Your task to perform on an android device: toggle improve location accuracy Image 0: 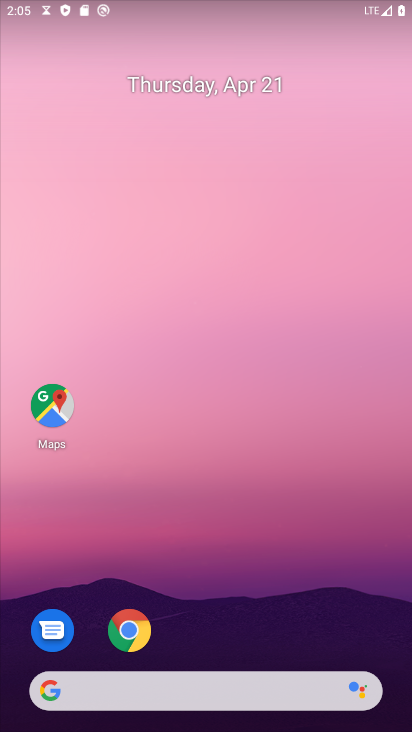
Step 0: drag from (372, 648) to (374, 1)
Your task to perform on an android device: toggle improve location accuracy Image 1: 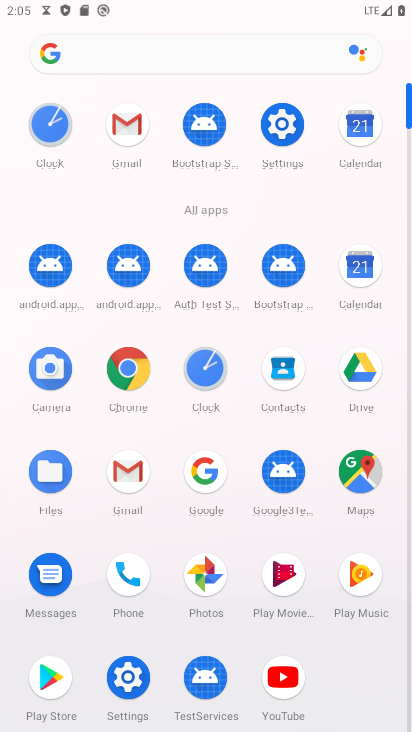
Step 1: click (273, 126)
Your task to perform on an android device: toggle improve location accuracy Image 2: 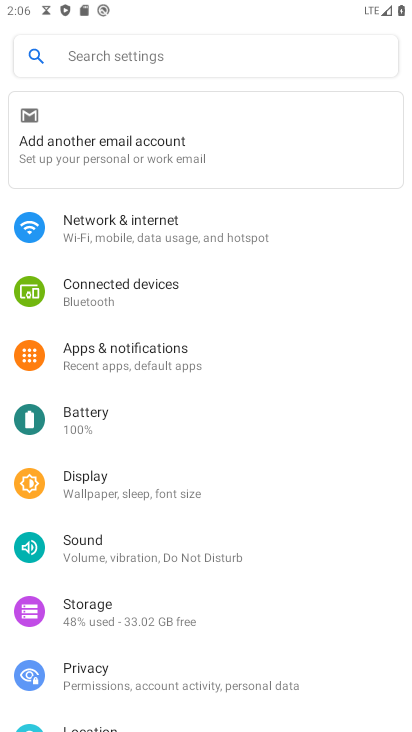
Step 2: drag from (233, 598) to (240, 308)
Your task to perform on an android device: toggle improve location accuracy Image 3: 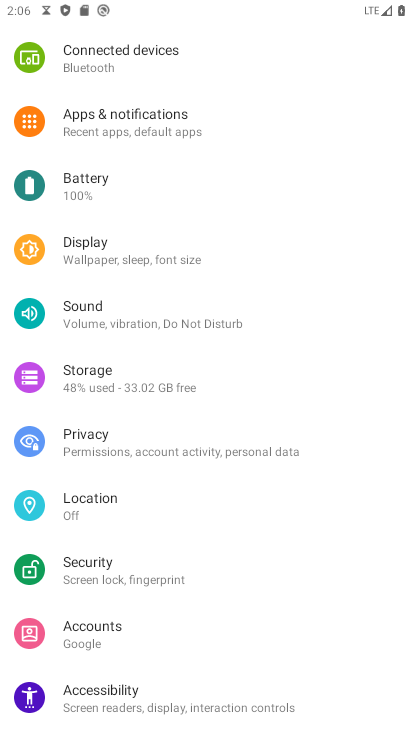
Step 3: click (70, 498)
Your task to perform on an android device: toggle improve location accuracy Image 4: 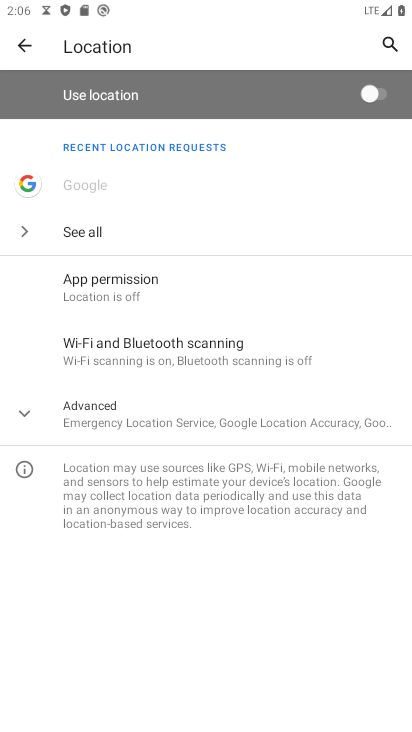
Step 4: click (22, 412)
Your task to perform on an android device: toggle improve location accuracy Image 5: 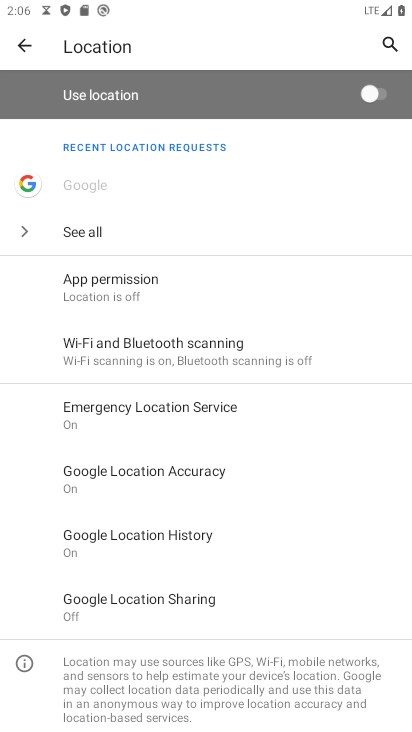
Step 5: click (128, 476)
Your task to perform on an android device: toggle improve location accuracy Image 6: 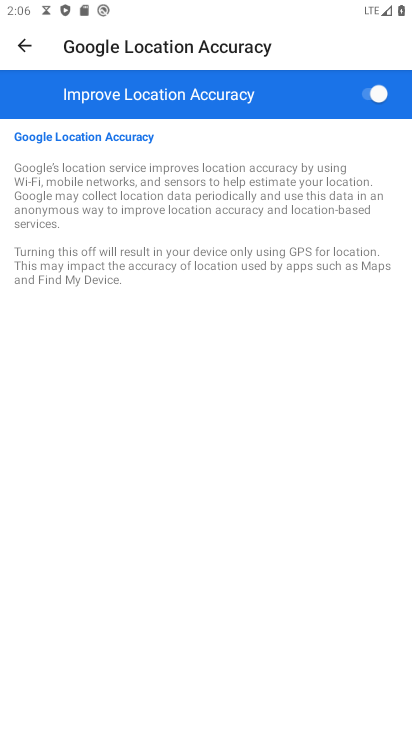
Step 6: click (371, 100)
Your task to perform on an android device: toggle improve location accuracy Image 7: 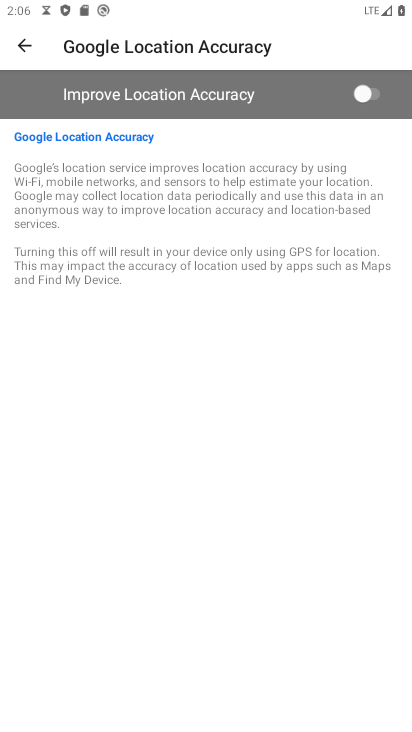
Step 7: task complete